Your task to perform on an android device: turn off location history Image 0: 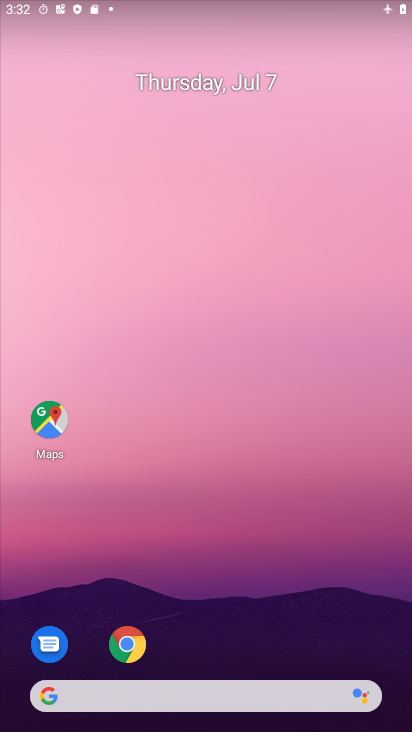
Step 0: drag from (193, 685) to (329, 551)
Your task to perform on an android device: turn off location history Image 1: 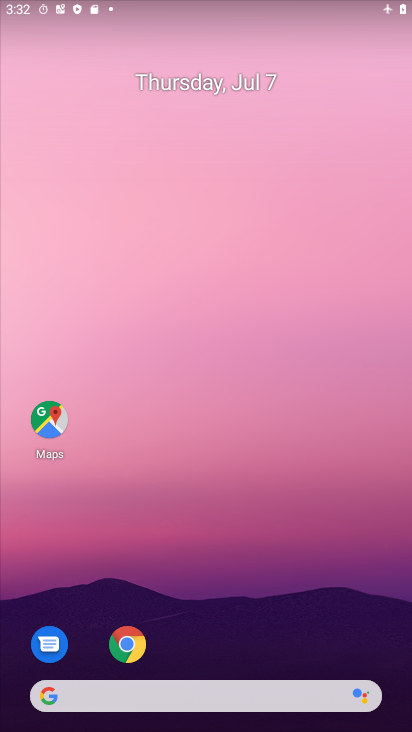
Step 1: drag from (248, 650) to (155, 92)
Your task to perform on an android device: turn off location history Image 2: 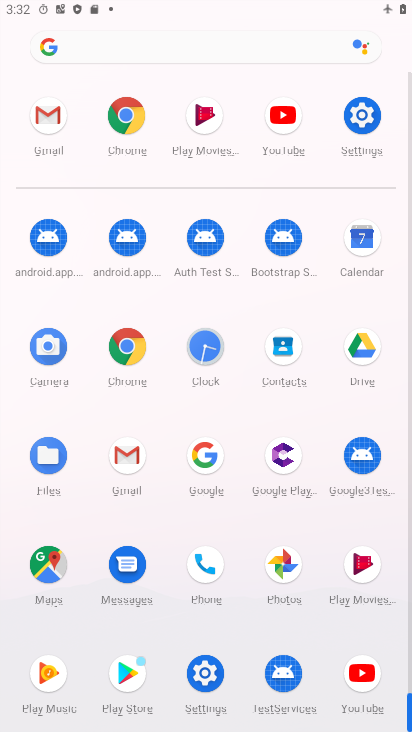
Step 2: click (213, 691)
Your task to perform on an android device: turn off location history Image 3: 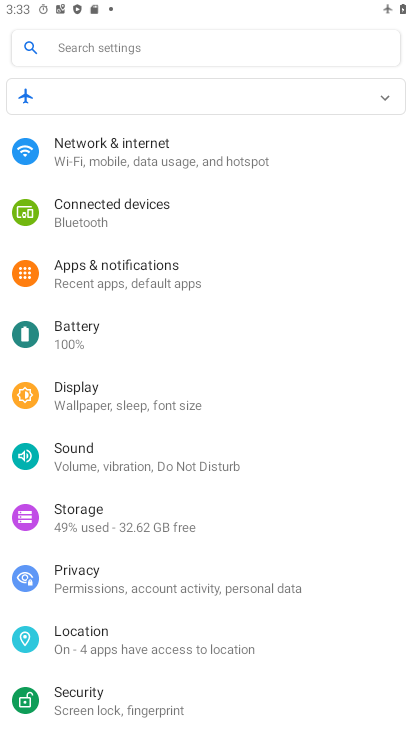
Step 3: click (114, 626)
Your task to perform on an android device: turn off location history Image 4: 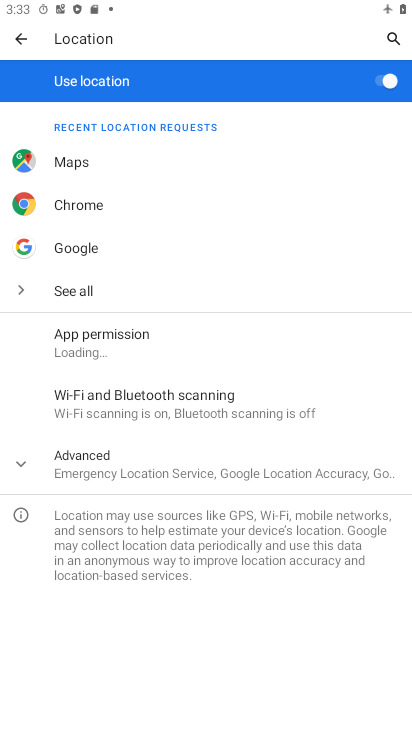
Step 4: click (121, 459)
Your task to perform on an android device: turn off location history Image 5: 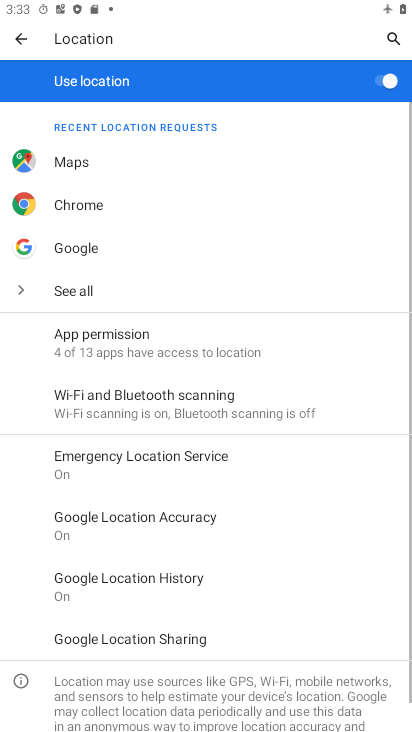
Step 5: click (148, 580)
Your task to perform on an android device: turn off location history Image 6: 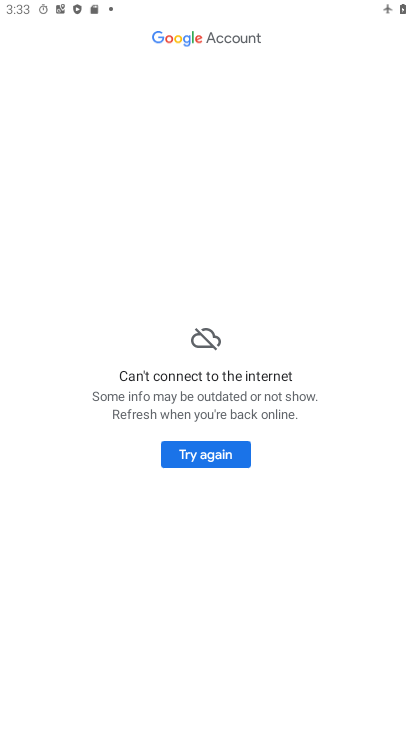
Step 6: click (192, 458)
Your task to perform on an android device: turn off location history Image 7: 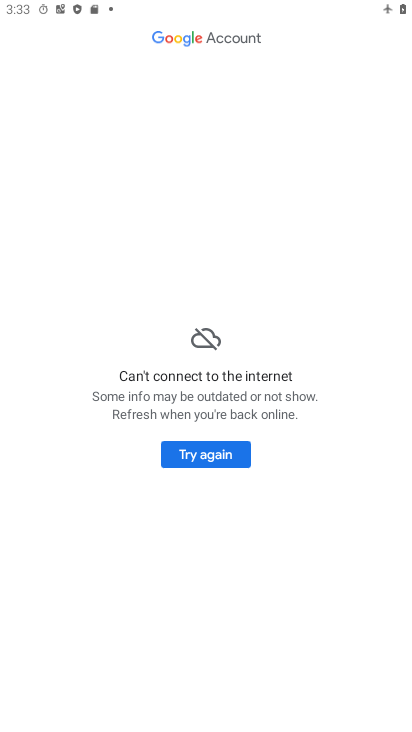
Step 7: task complete